Your task to perform on an android device: Go to display settings Image 0: 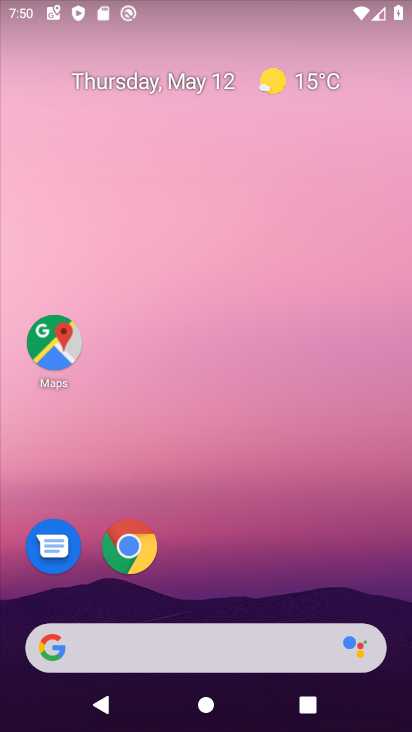
Step 0: press home button
Your task to perform on an android device: Go to display settings Image 1: 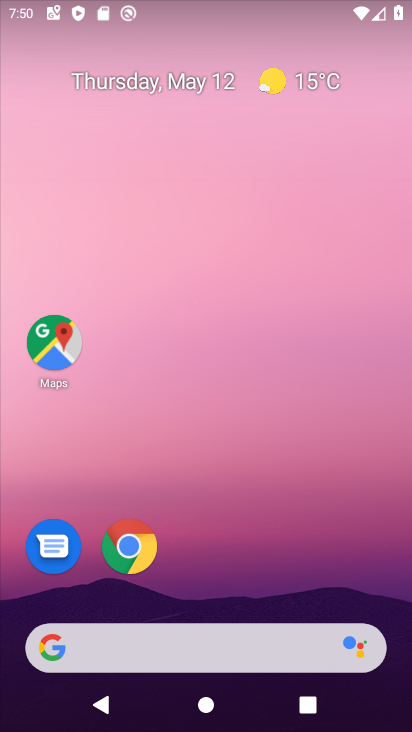
Step 1: drag from (176, 645) to (299, 98)
Your task to perform on an android device: Go to display settings Image 2: 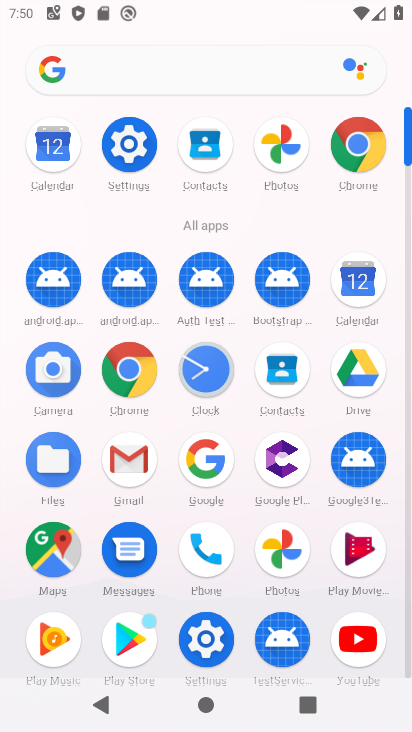
Step 2: click (133, 155)
Your task to perform on an android device: Go to display settings Image 3: 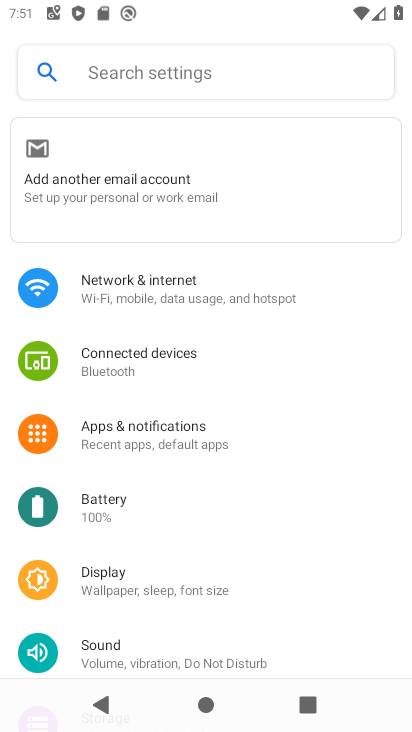
Step 3: click (106, 573)
Your task to perform on an android device: Go to display settings Image 4: 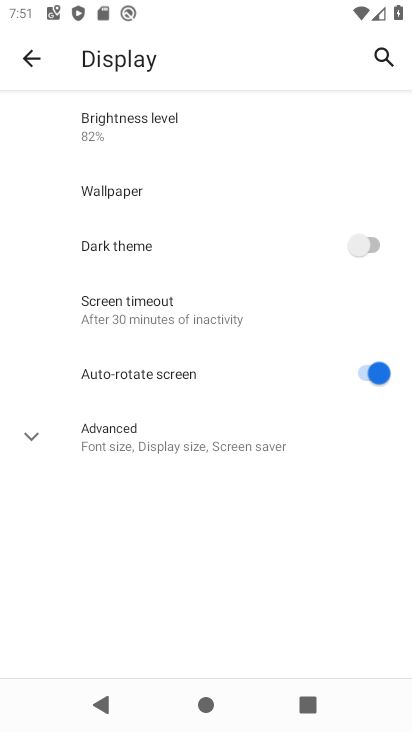
Step 4: task complete